Your task to perform on an android device: open app "Grab" (install if not already installed) and enter user name: "interspersion@gmail.com" and password: "aristocrats" Image 0: 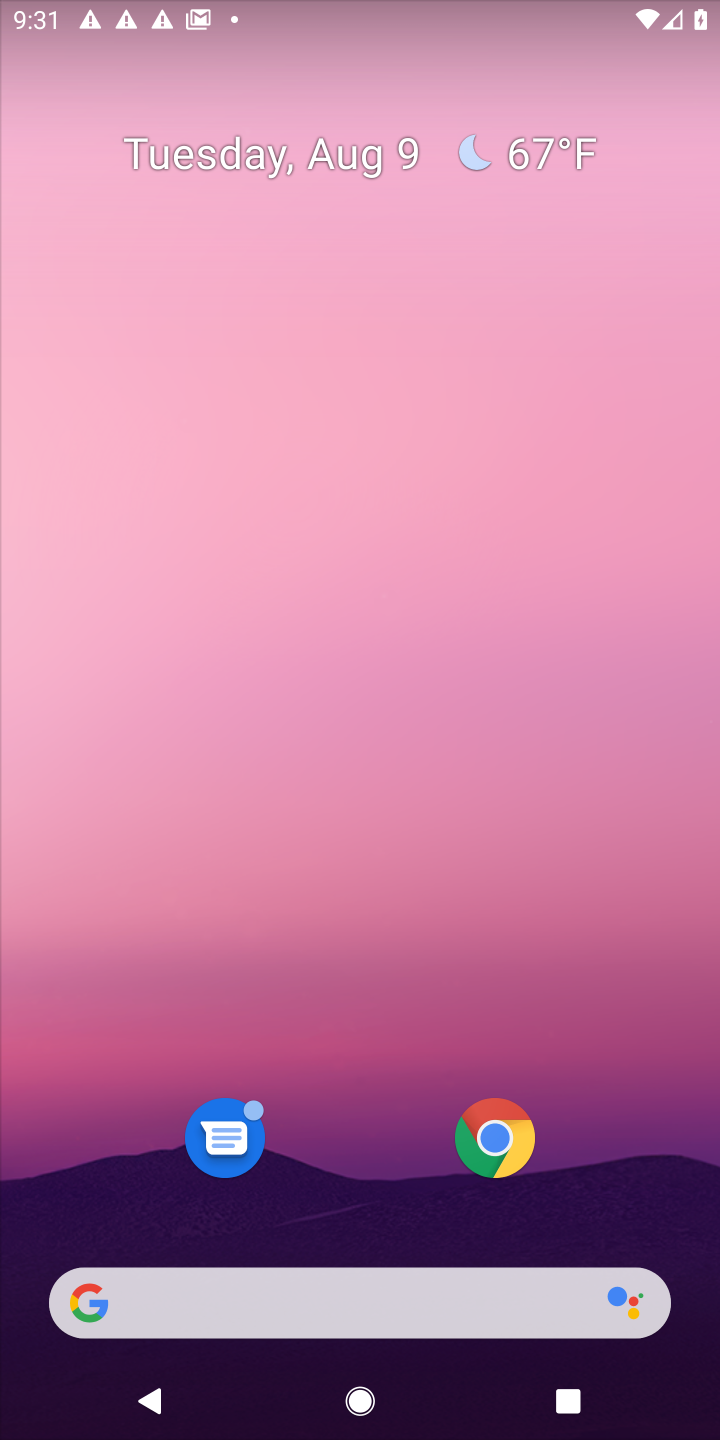
Step 0: press home button
Your task to perform on an android device: open app "Grab" (install if not already installed) and enter user name: "interspersion@gmail.com" and password: "aristocrats" Image 1: 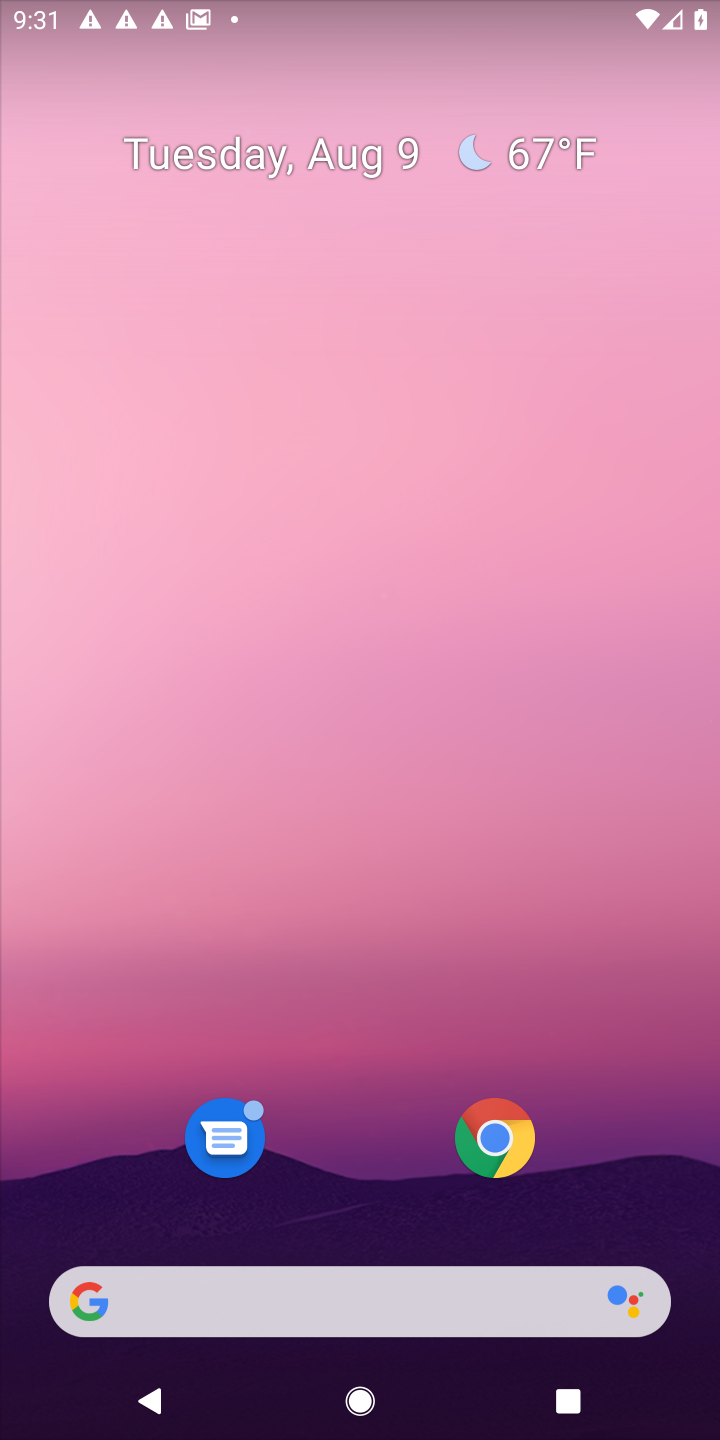
Step 1: drag from (379, 1169) to (403, 69)
Your task to perform on an android device: open app "Grab" (install if not already installed) and enter user name: "interspersion@gmail.com" and password: "aristocrats" Image 2: 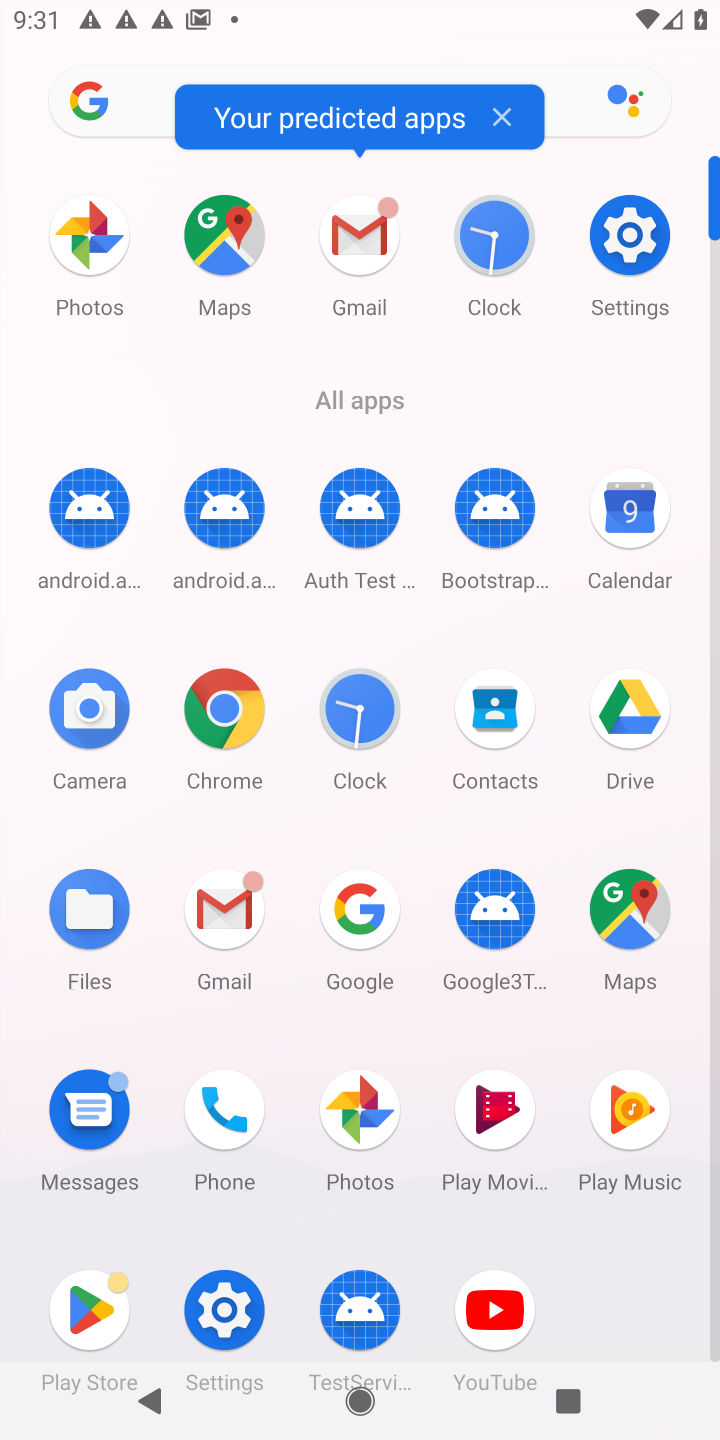
Step 2: click (80, 1299)
Your task to perform on an android device: open app "Grab" (install if not already installed) and enter user name: "interspersion@gmail.com" and password: "aristocrats" Image 3: 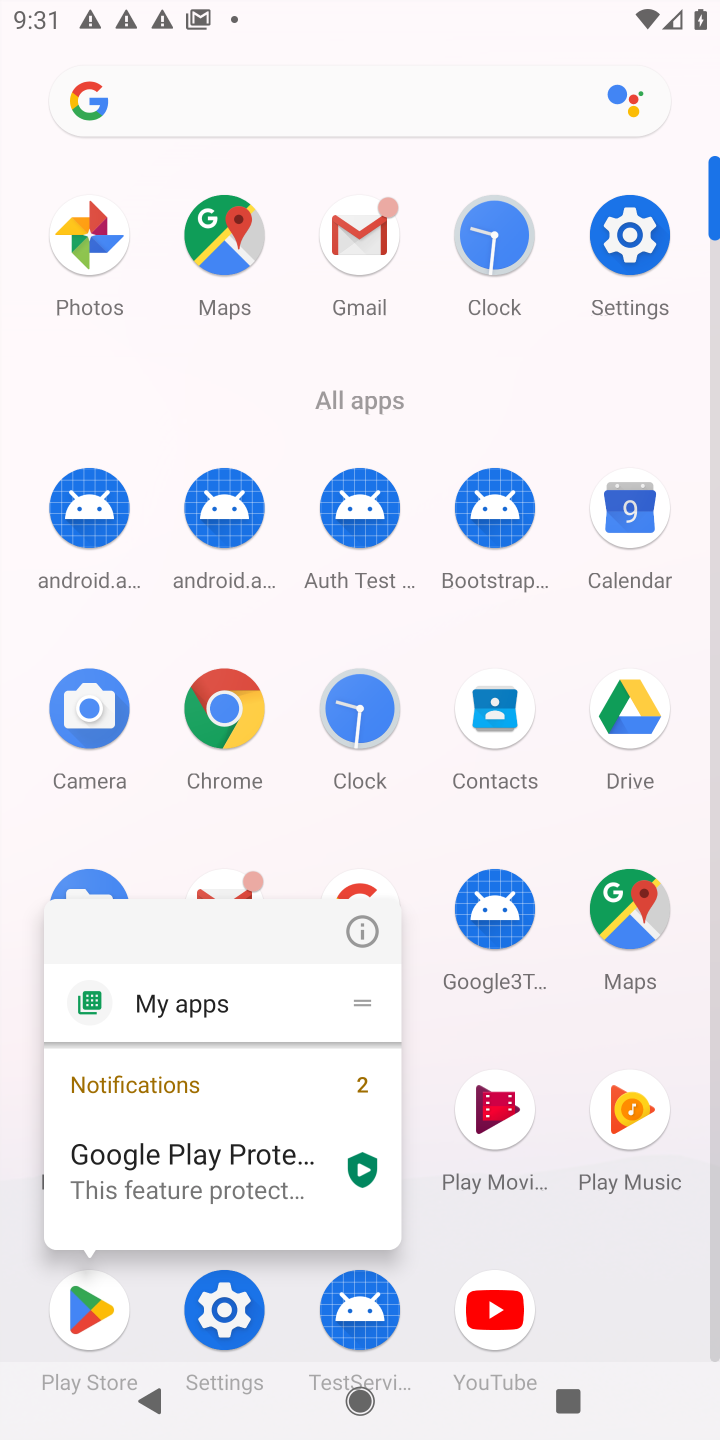
Step 3: click (84, 1299)
Your task to perform on an android device: open app "Grab" (install if not already installed) and enter user name: "interspersion@gmail.com" and password: "aristocrats" Image 4: 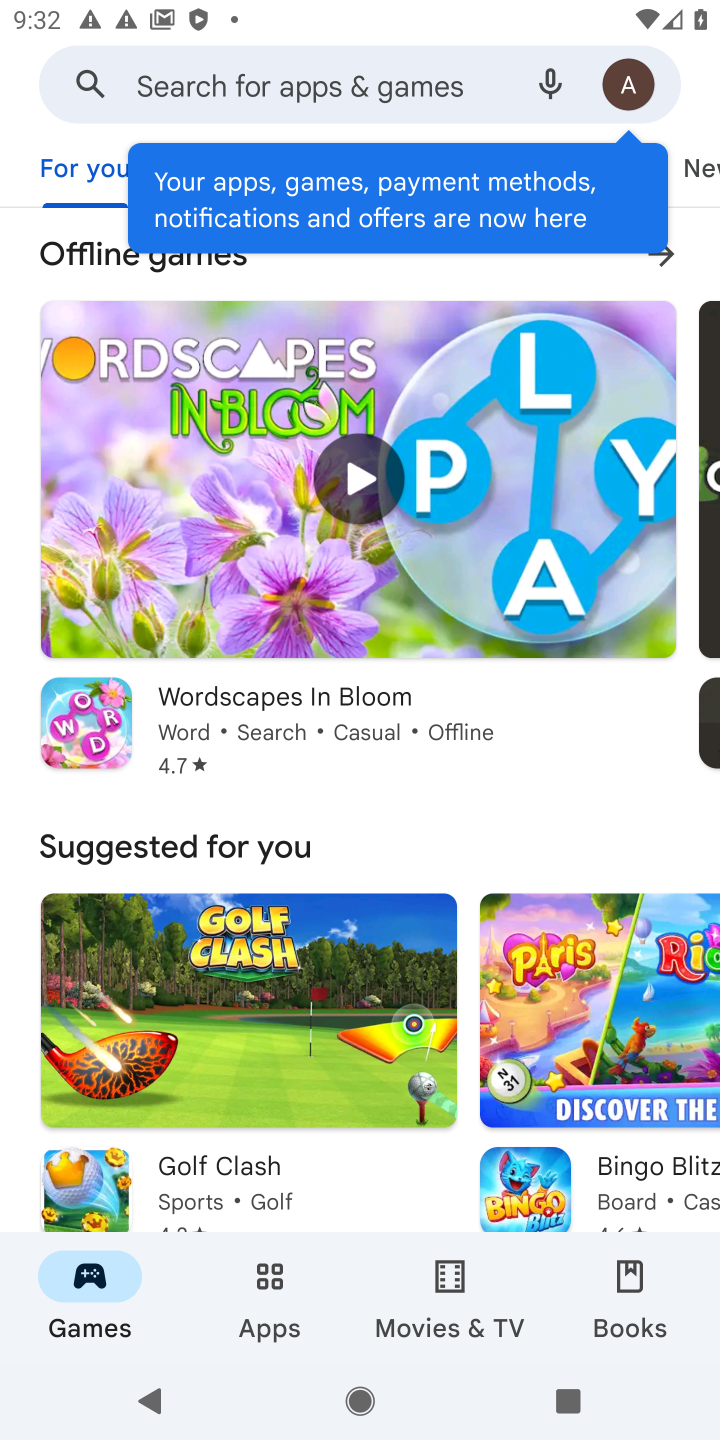
Step 4: click (229, 61)
Your task to perform on an android device: open app "Grab" (install if not already installed) and enter user name: "interspersion@gmail.com" and password: "aristocrats" Image 5: 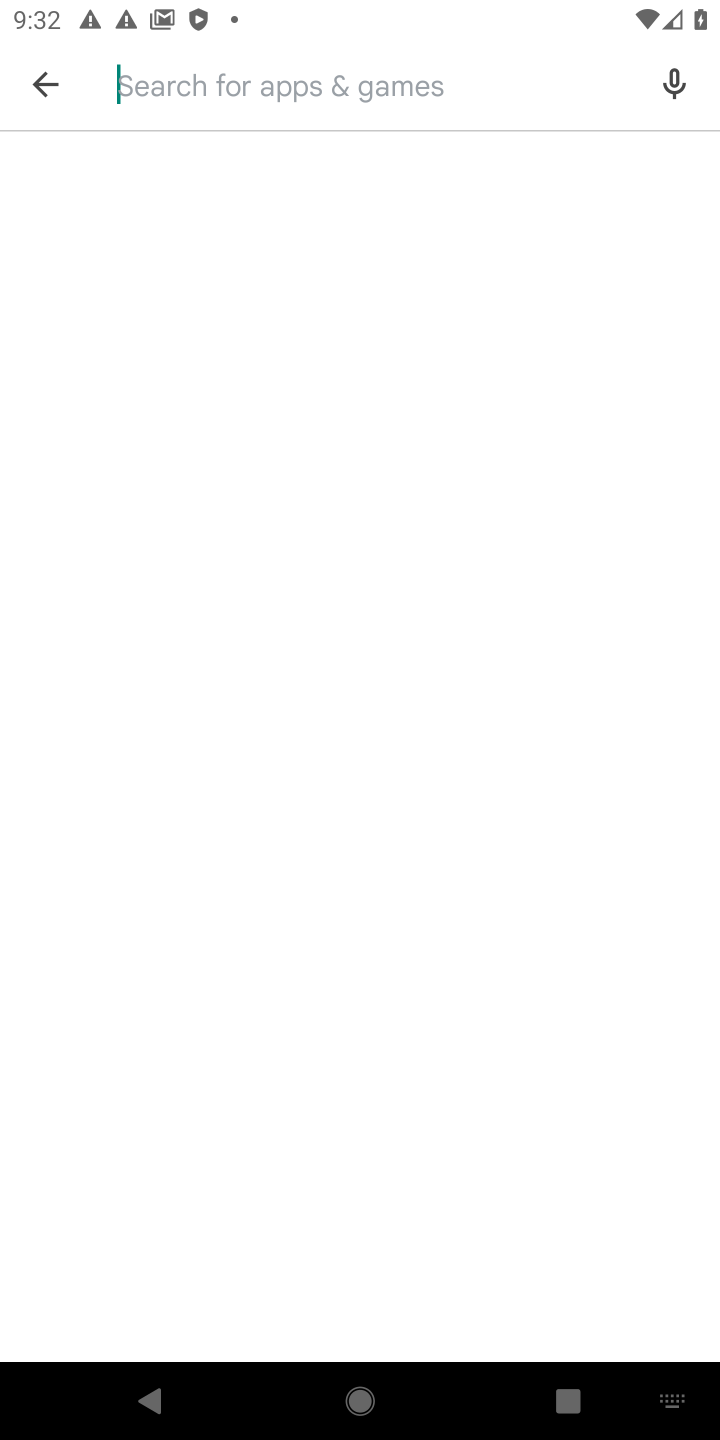
Step 5: type "Grab"
Your task to perform on an android device: open app "Grab" (install if not already installed) and enter user name: "interspersion@gmail.com" and password: "aristocrats" Image 6: 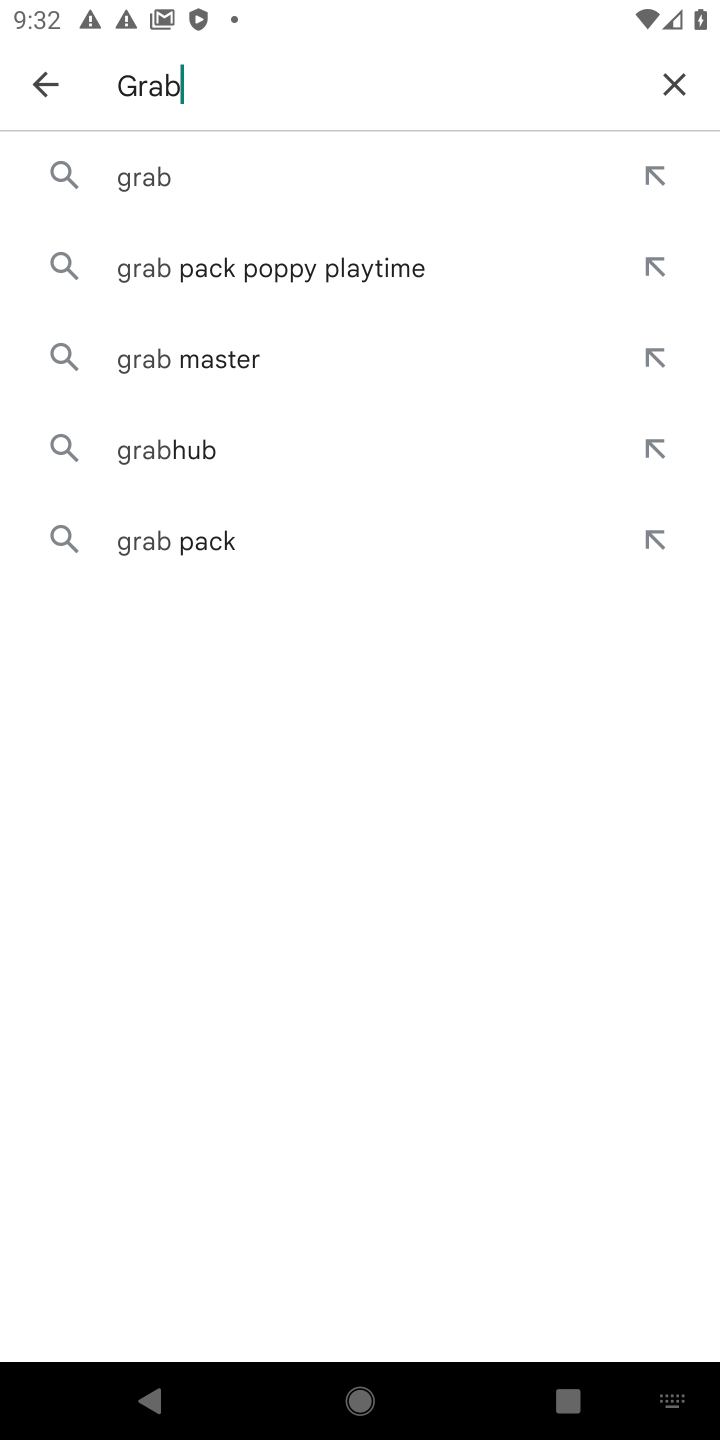
Step 6: click (185, 174)
Your task to perform on an android device: open app "Grab" (install if not already installed) and enter user name: "interspersion@gmail.com" and password: "aristocrats" Image 7: 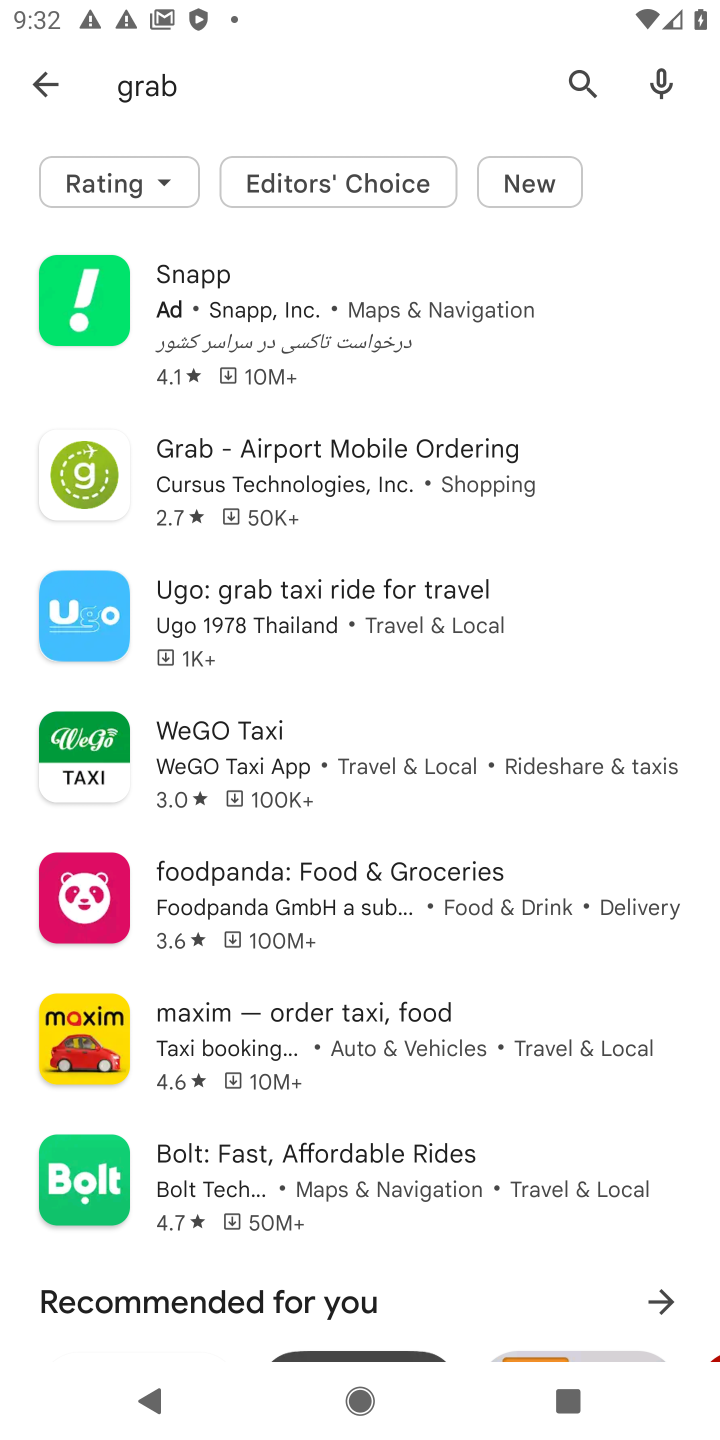
Step 7: click (203, 465)
Your task to perform on an android device: open app "Grab" (install if not already installed) and enter user name: "interspersion@gmail.com" and password: "aristocrats" Image 8: 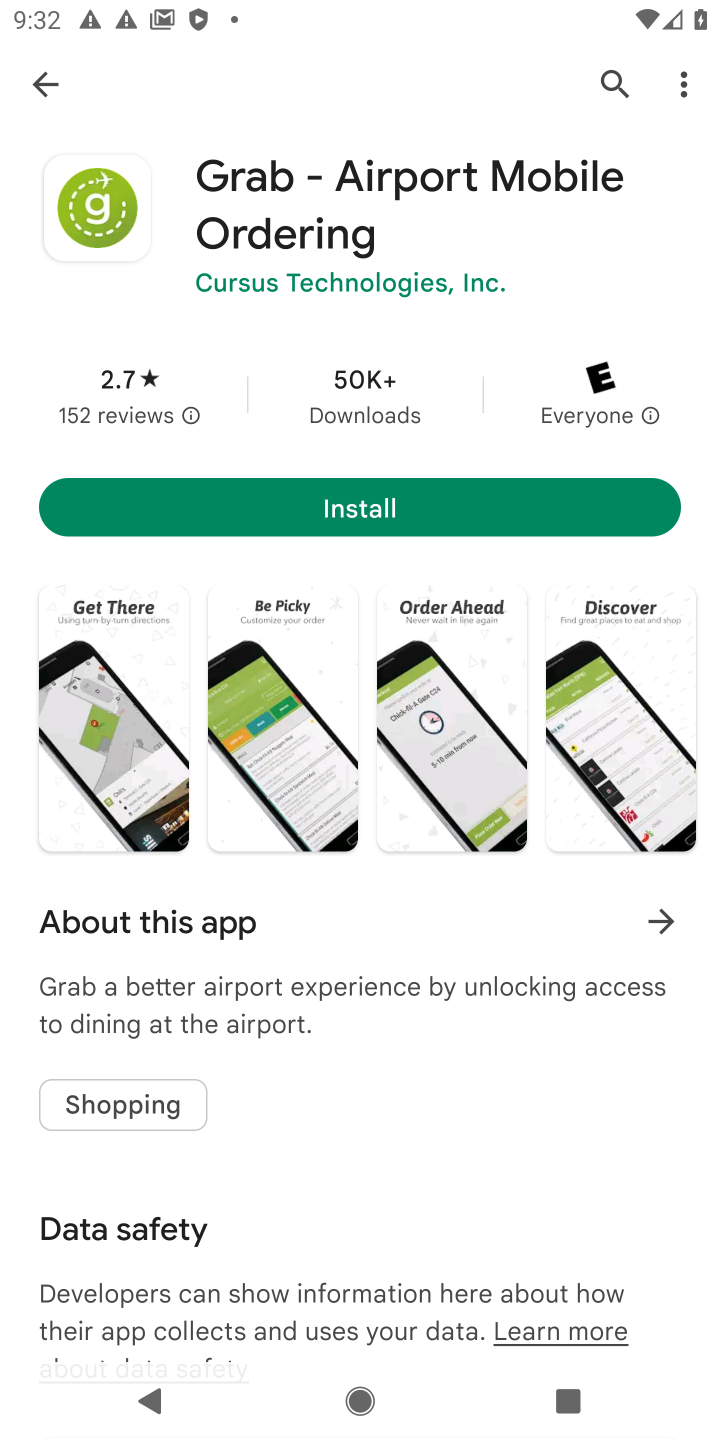
Step 8: click (347, 507)
Your task to perform on an android device: open app "Grab" (install if not already installed) and enter user name: "interspersion@gmail.com" and password: "aristocrats" Image 9: 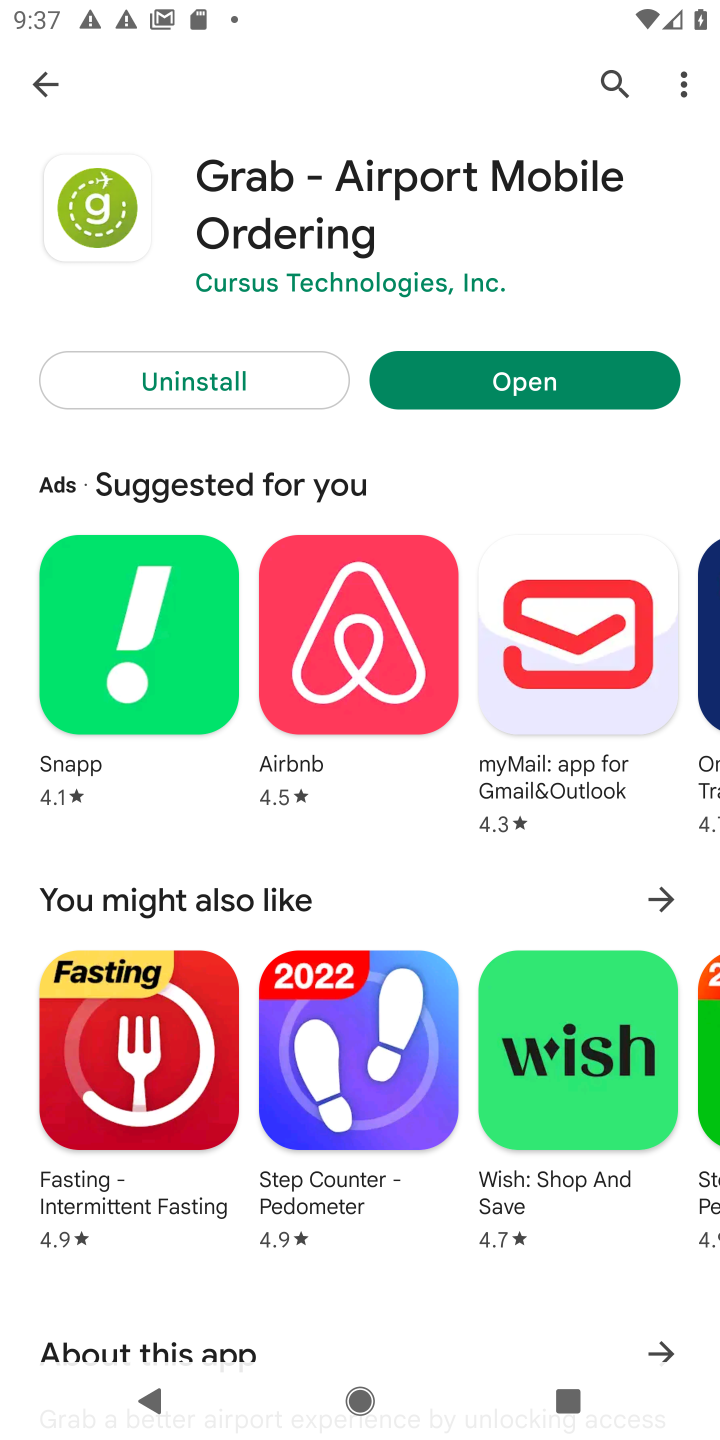
Step 9: click (529, 404)
Your task to perform on an android device: open app "Grab" (install if not already installed) and enter user name: "interspersion@gmail.com" and password: "aristocrats" Image 10: 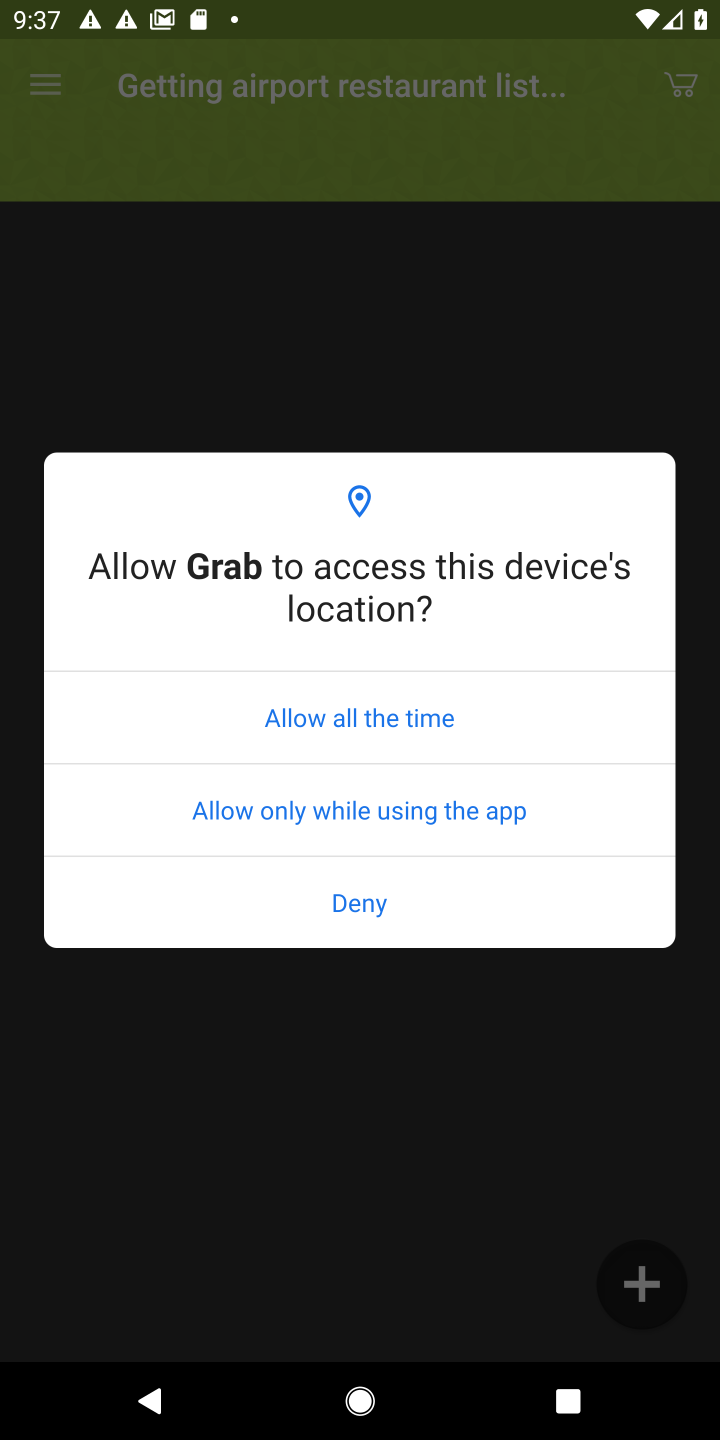
Step 10: click (345, 727)
Your task to perform on an android device: open app "Grab" (install if not already installed) and enter user name: "interspersion@gmail.com" and password: "aristocrats" Image 11: 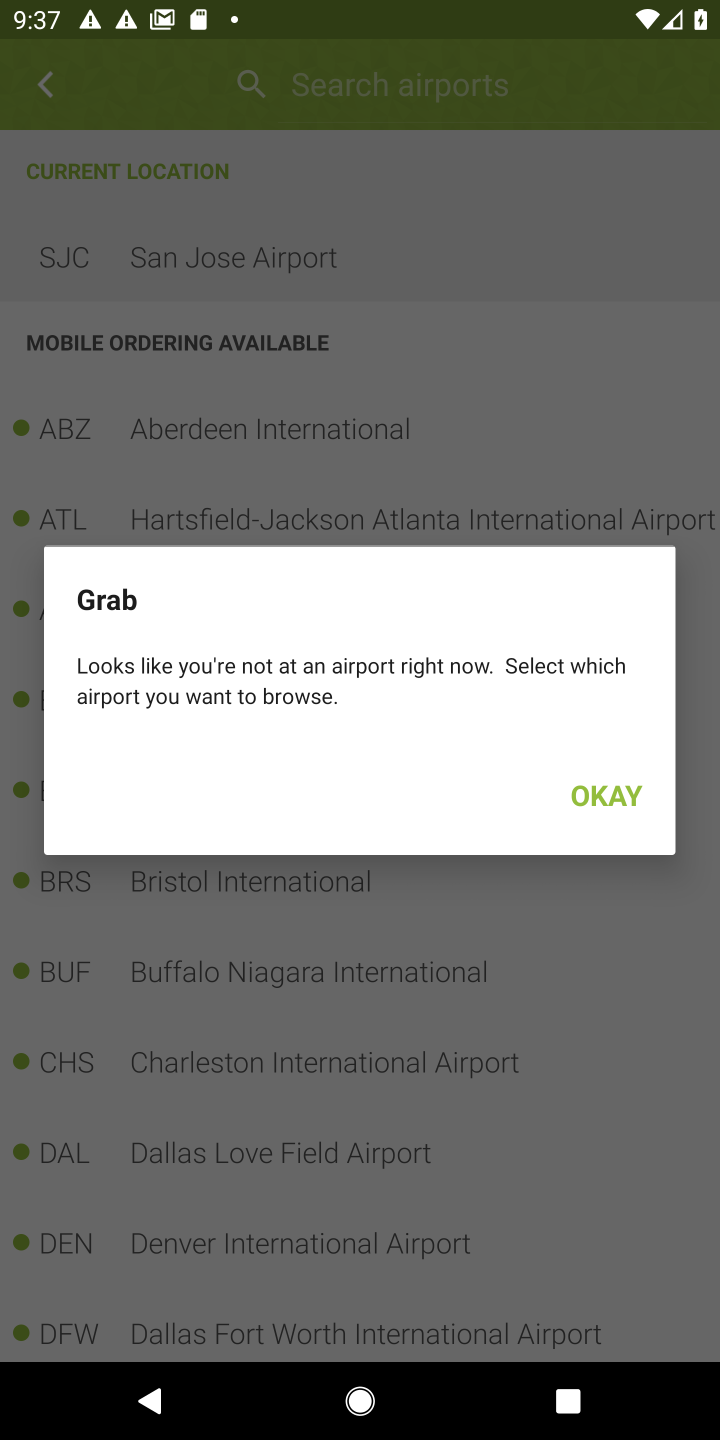
Step 11: click (613, 799)
Your task to perform on an android device: open app "Grab" (install if not already installed) and enter user name: "interspersion@gmail.com" and password: "aristocrats" Image 12: 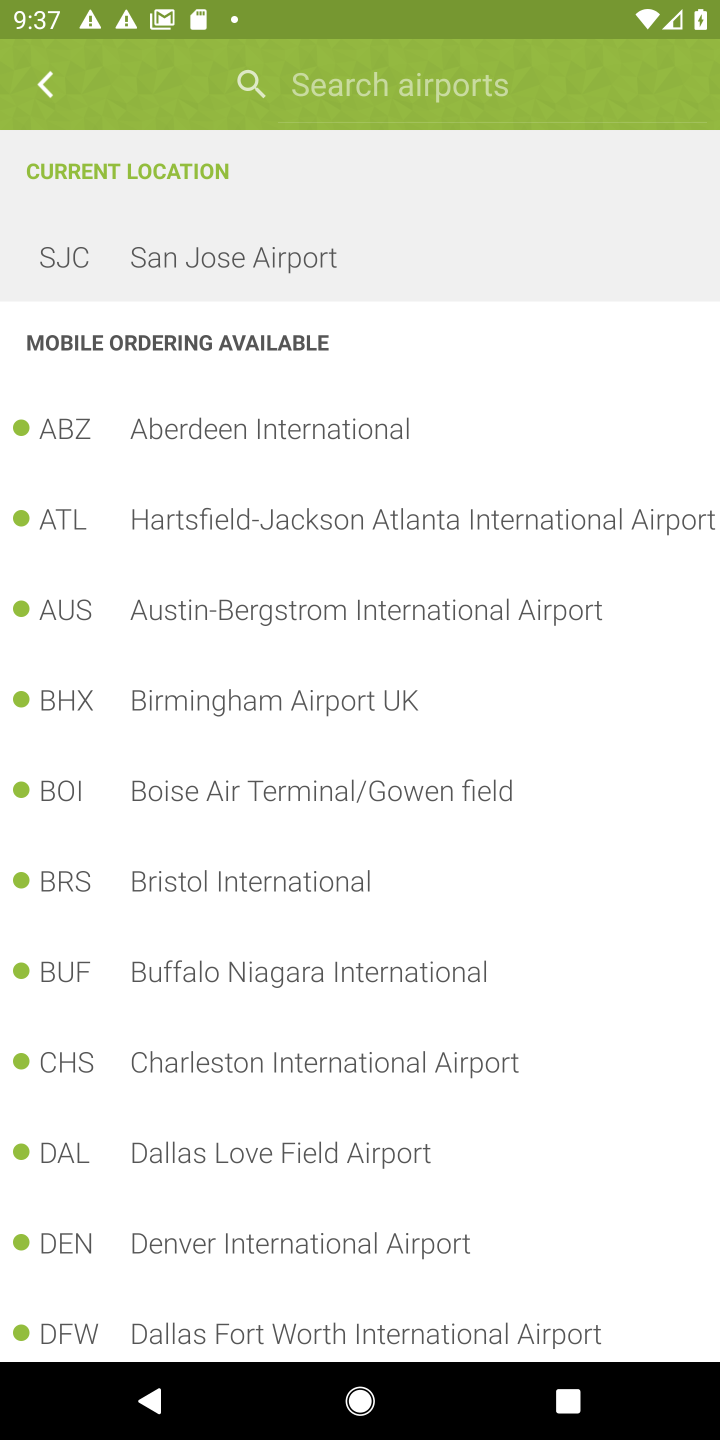
Step 12: click (48, 75)
Your task to perform on an android device: open app "Grab" (install if not already installed) and enter user name: "interspersion@gmail.com" and password: "aristocrats" Image 13: 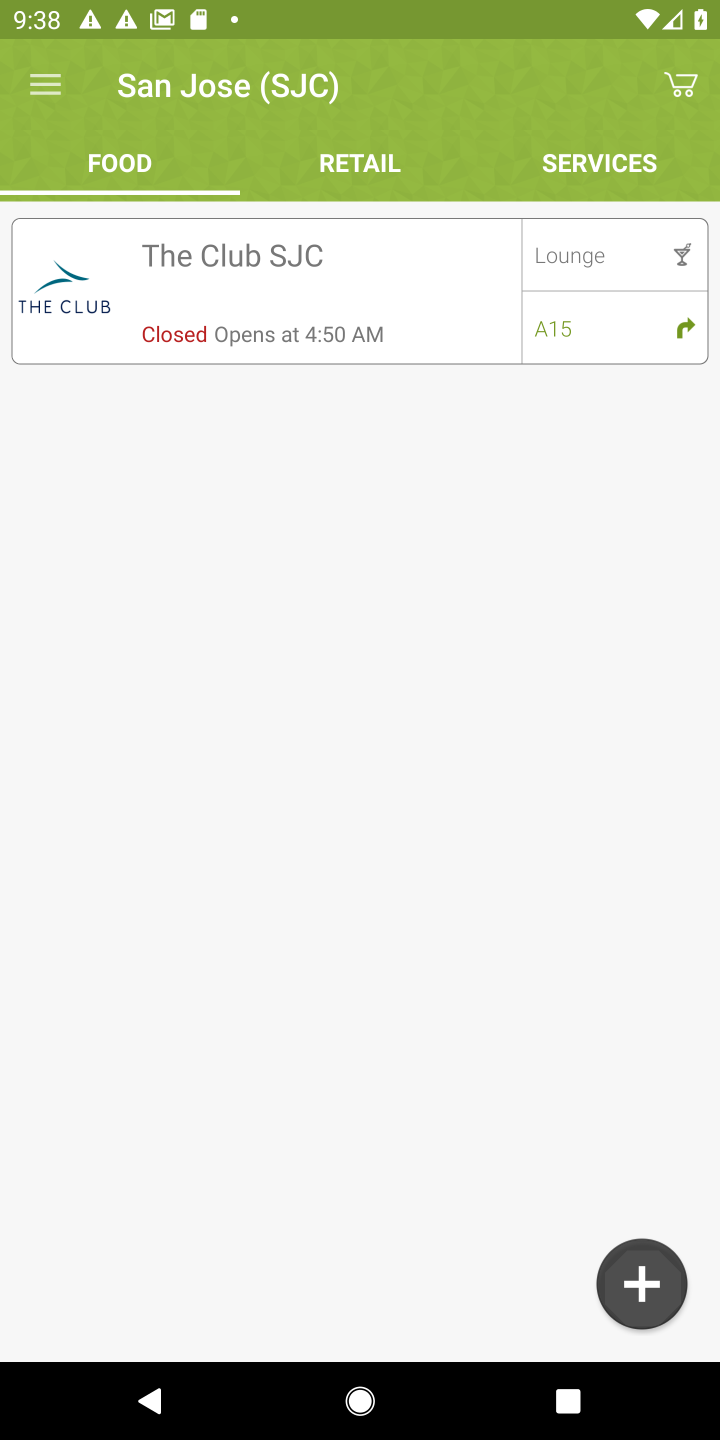
Step 13: click (40, 74)
Your task to perform on an android device: open app "Grab" (install if not already installed) and enter user name: "interspersion@gmail.com" and password: "aristocrats" Image 14: 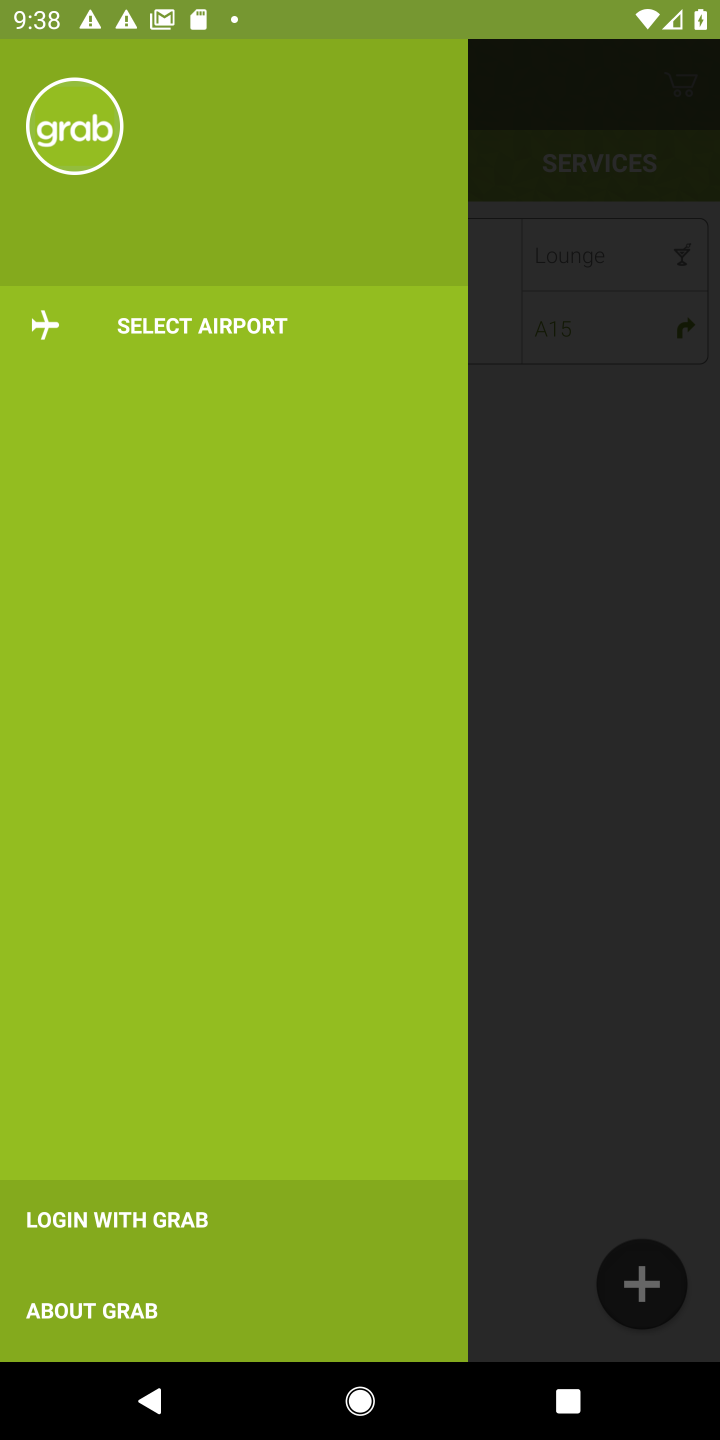
Step 14: click (116, 1227)
Your task to perform on an android device: open app "Grab" (install if not already installed) and enter user name: "interspersion@gmail.com" and password: "aristocrats" Image 15: 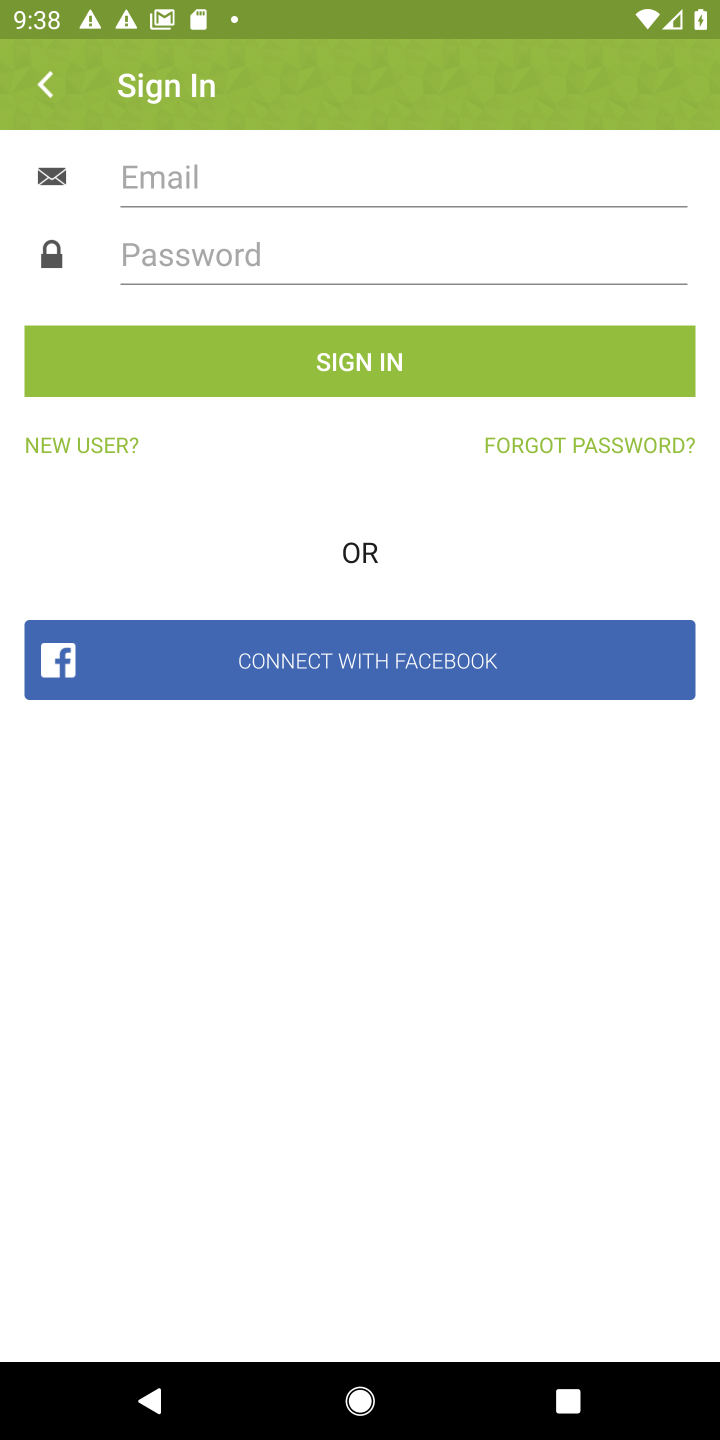
Step 15: click (180, 161)
Your task to perform on an android device: open app "Grab" (install if not already installed) and enter user name: "interspersion@gmail.com" and password: "aristocrats" Image 16: 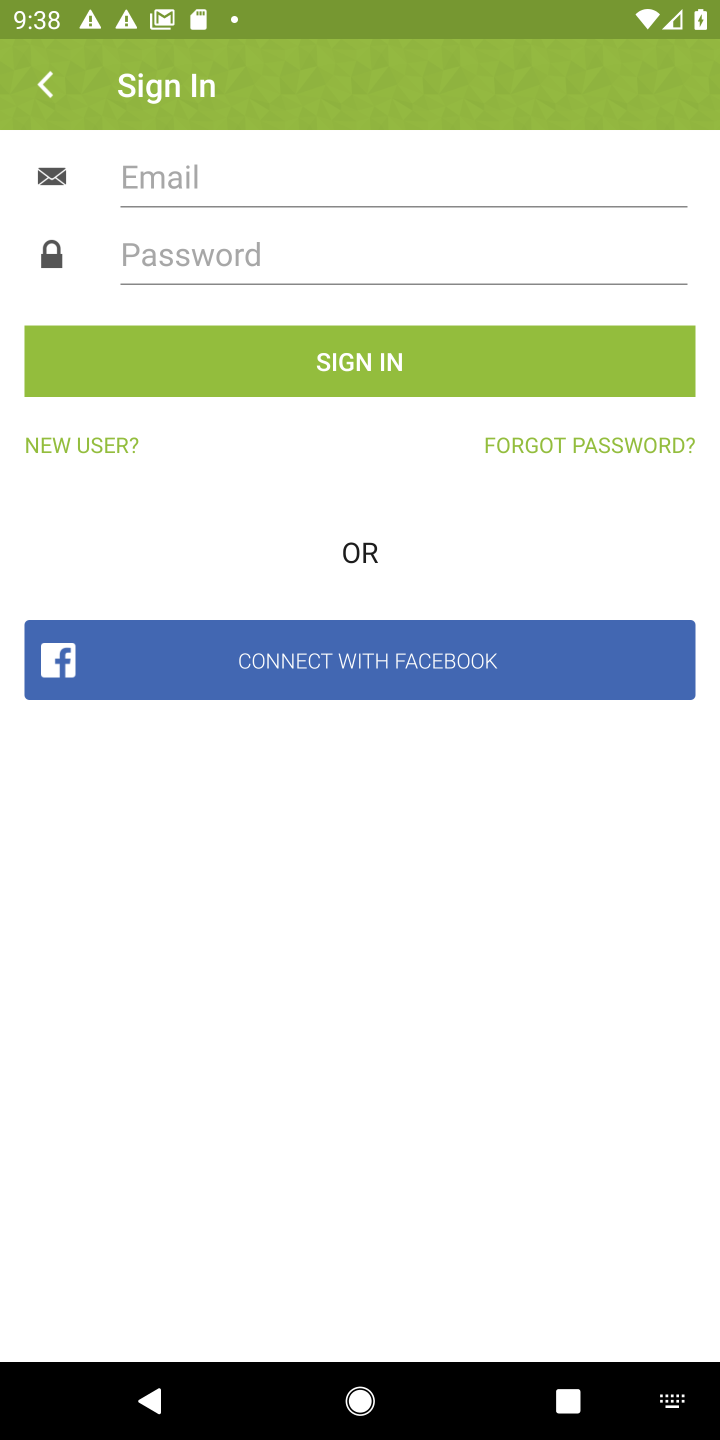
Step 16: type "interspersion@gmail.com"
Your task to perform on an android device: open app "Grab" (install if not already installed) and enter user name: "interspersion@gmail.com" and password: "aristocrats" Image 17: 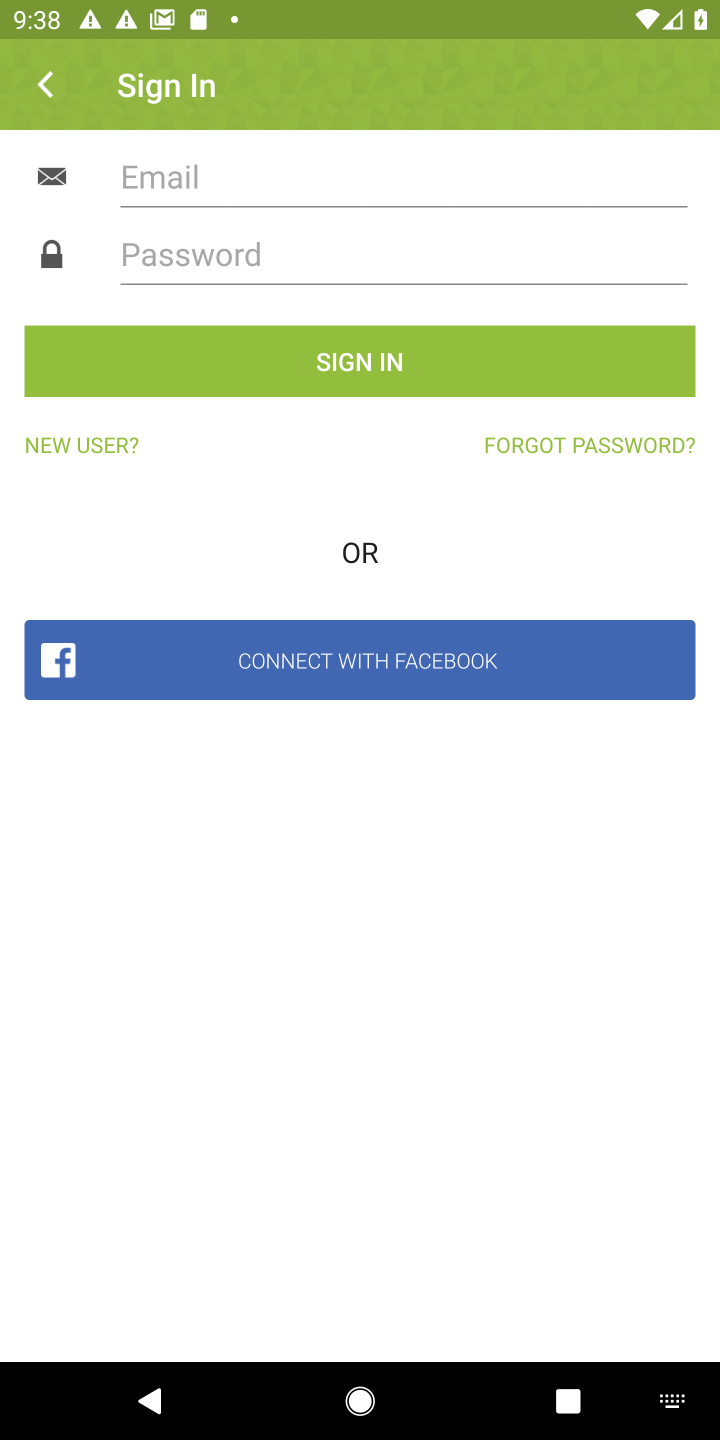
Step 17: click (229, 243)
Your task to perform on an android device: open app "Grab" (install if not already installed) and enter user name: "interspersion@gmail.com" and password: "aristocrats" Image 18: 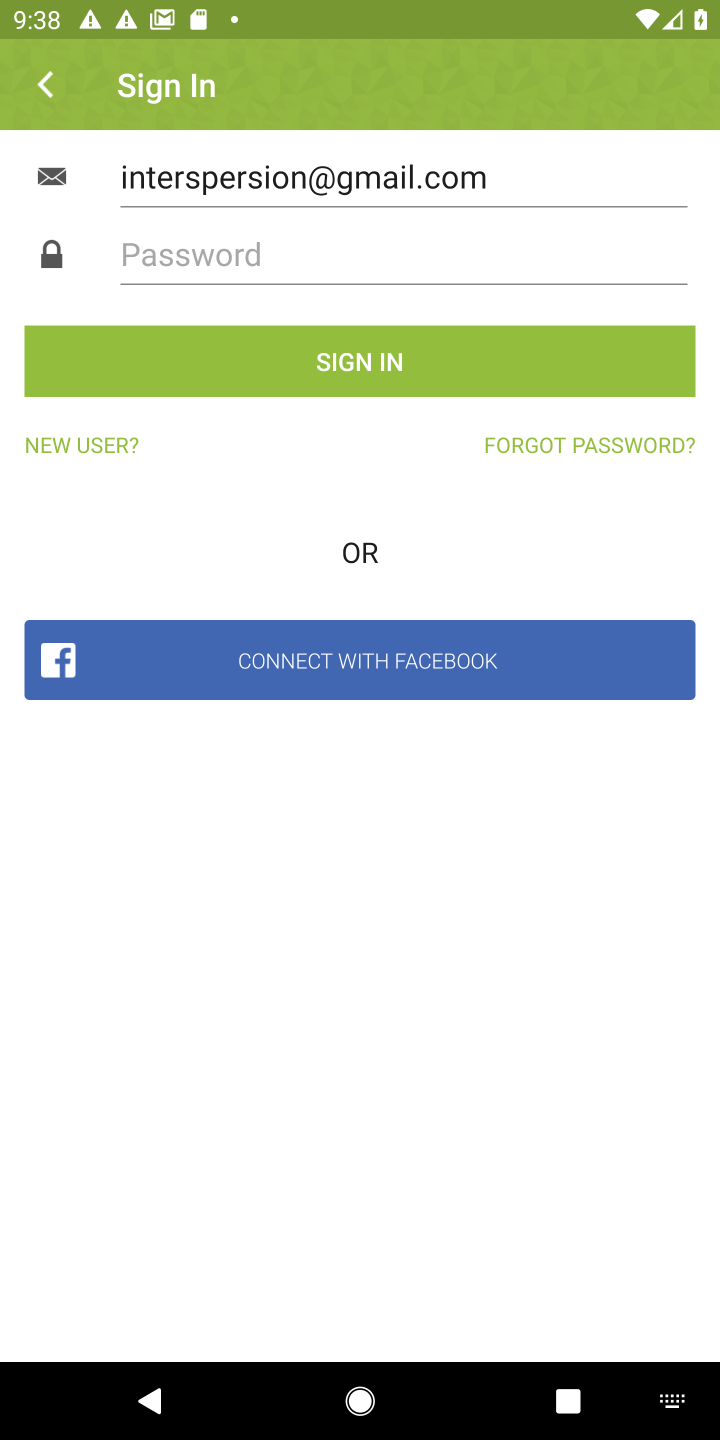
Step 18: click (211, 251)
Your task to perform on an android device: open app "Grab" (install if not already installed) and enter user name: "interspersion@gmail.com" and password: "aristocrats" Image 19: 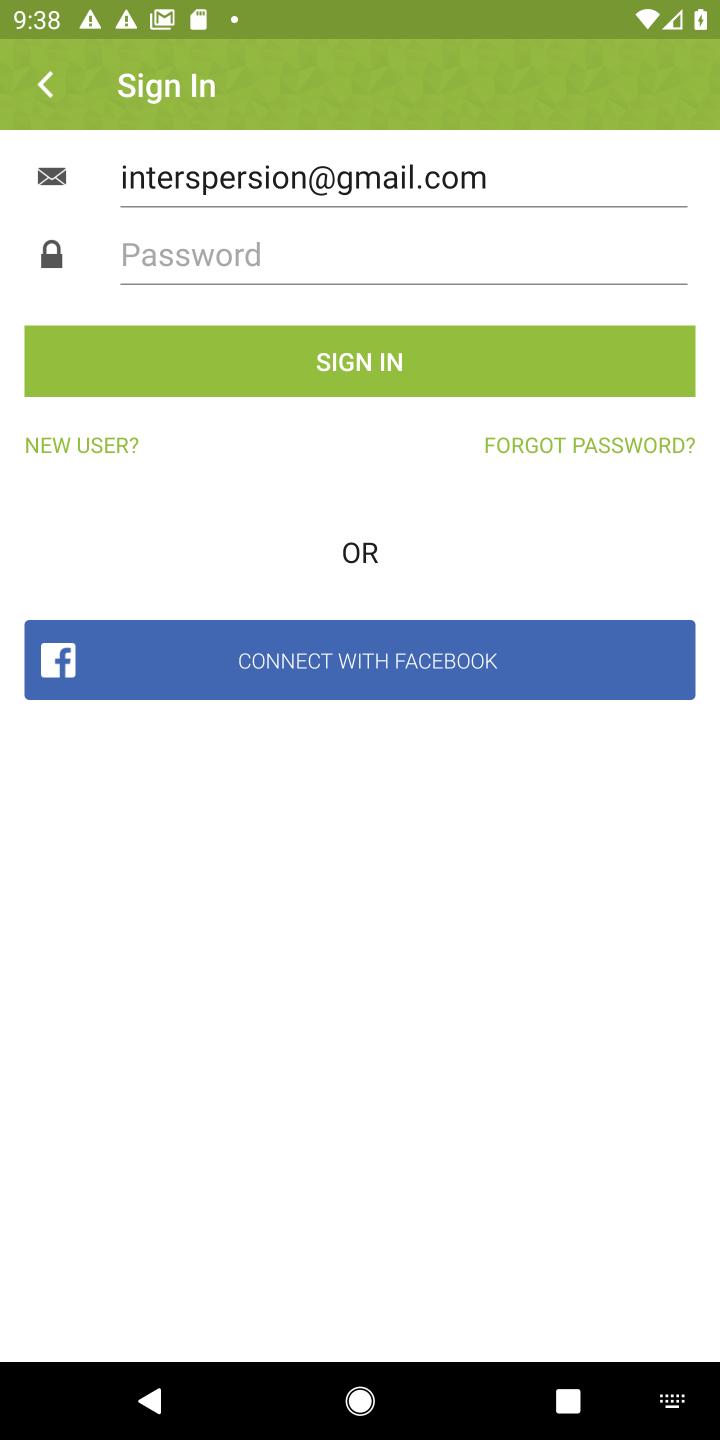
Step 19: type "aristocrats"
Your task to perform on an android device: open app "Grab" (install if not already installed) and enter user name: "interspersion@gmail.com" and password: "aristocrats" Image 20: 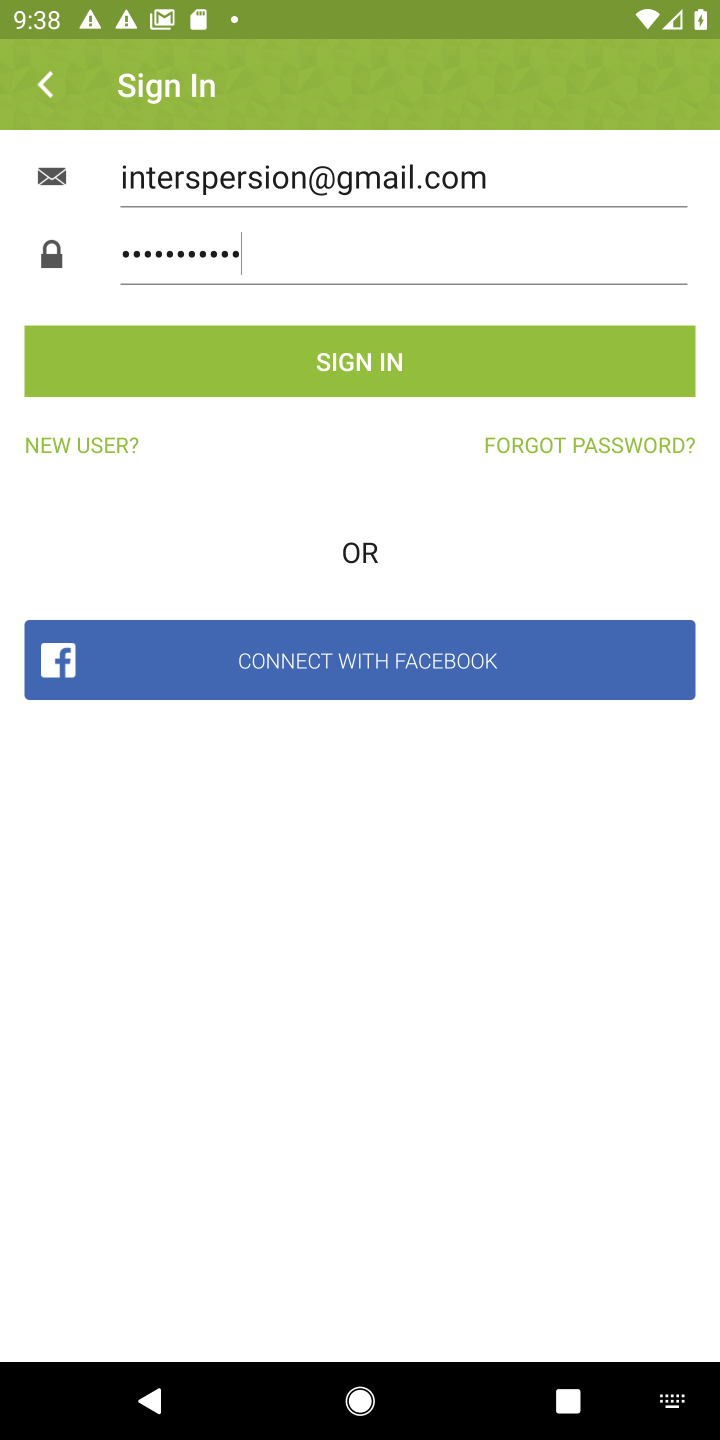
Step 20: click (334, 358)
Your task to perform on an android device: open app "Grab" (install if not already installed) and enter user name: "interspersion@gmail.com" and password: "aristocrats" Image 21: 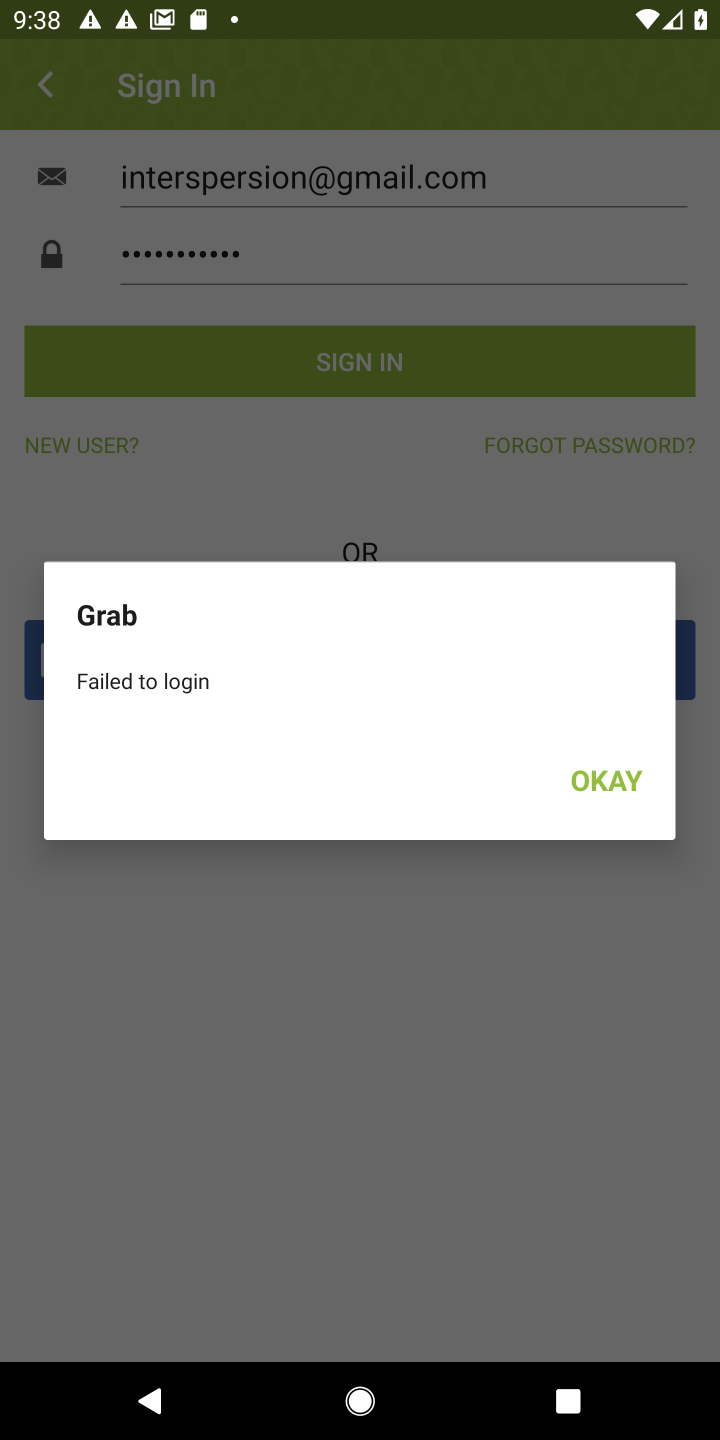
Step 21: task complete